Your task to perform on an android device: Clear the shopping cart on ebay. Search for "logitech g pro" on ebay, select the first entry, and add it to the cart. Image 0: 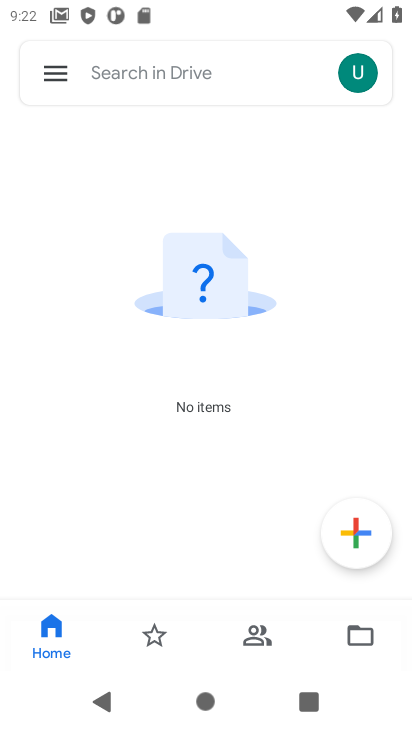
Step 0: press home button
Your task to perform on an android device: Clear the shopping cart on ebay. Search for "logitech g pro" on ebay, select the first entry, and add it to the cart. Image 1: 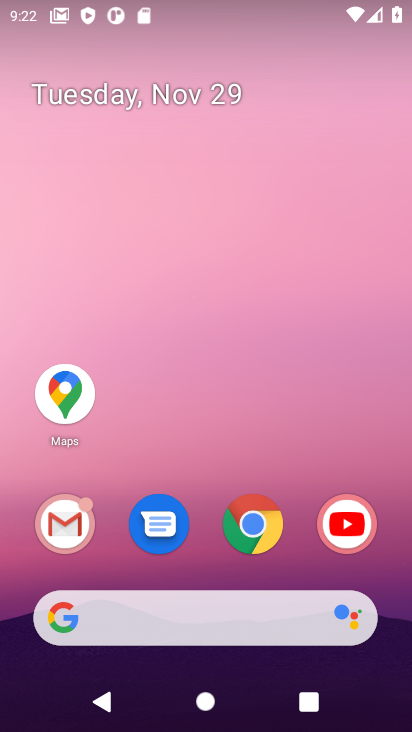
Step 1: click (256, 533)
Your task to perform on an android device: Clear the shopping cart on ebay. Search for "logitech g pro" on ebay, select the first entry, and add it to the cart. Image 2: 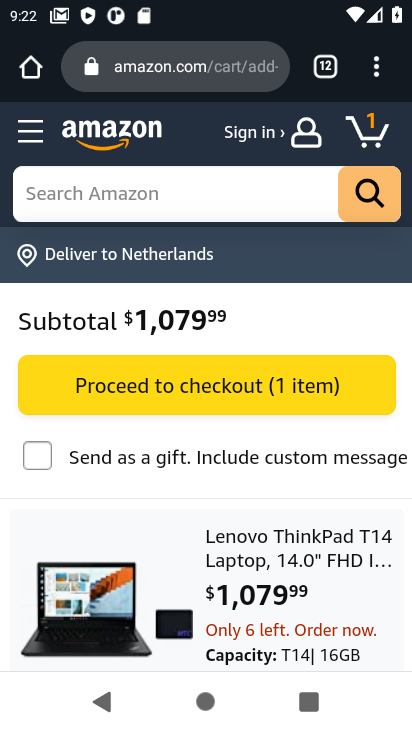
Step 2: click (159, 72)
Your task to perform on an android device: Clear the shopping cart on ebay. Search for "logitech g pro" on ebay, select the first entry, and add it to the cart. Image 3: 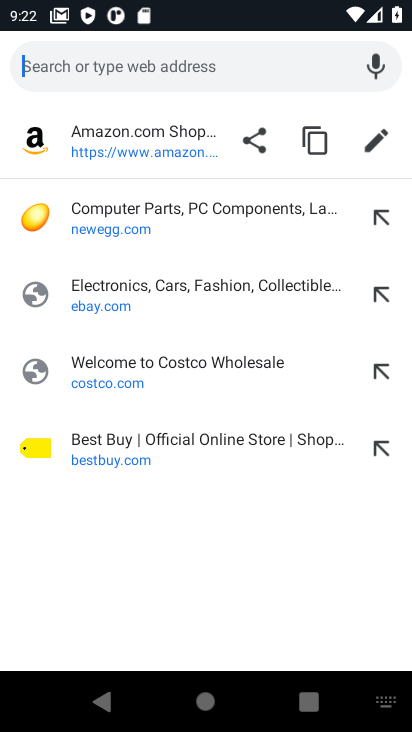
Step 3: click (80, 301)
Your task to perform on an android device: Clear the shopping cart on ebay. Search for "logitech g pro" on ebay, select the first entry, and add it to the cart. Image 4: 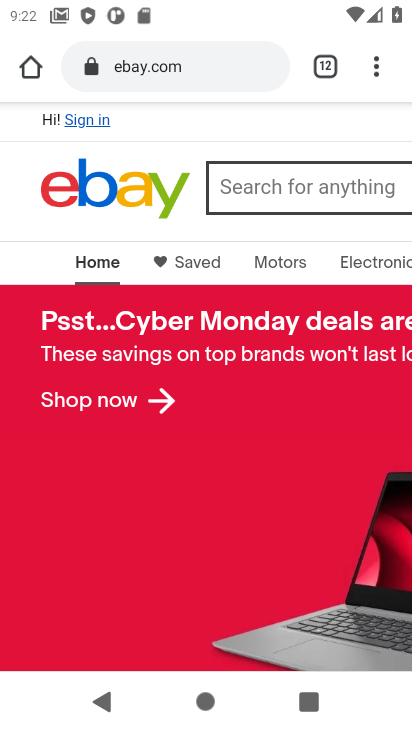
Step 4: drag from (297, 142) to (0, 122)
Your task to perform on an android device: Clear the shopping cart on ebay. Search for "logitech g pro" on ebay, select the first entry, and add it to the cart. Image 5: 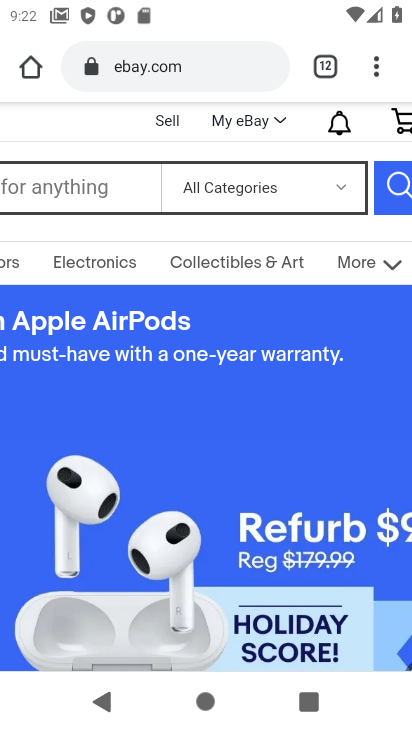
Step 5: click (404, 119)
Your task to perform on an android device: Clear the shopping cart on ebay. Search for "logitech g pro" on ebay, select the first entry, and add it to the cart. Image 6: 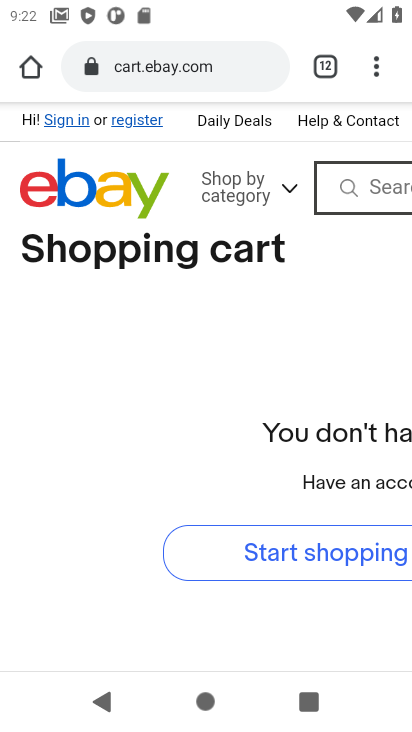
Step 6: click (315, 693)
Your task to perform on an android device: Clear the shopping cart on ebay. Search for "logitech g pro" on ebay, select the first entry, and add it to the cart. Image 7: 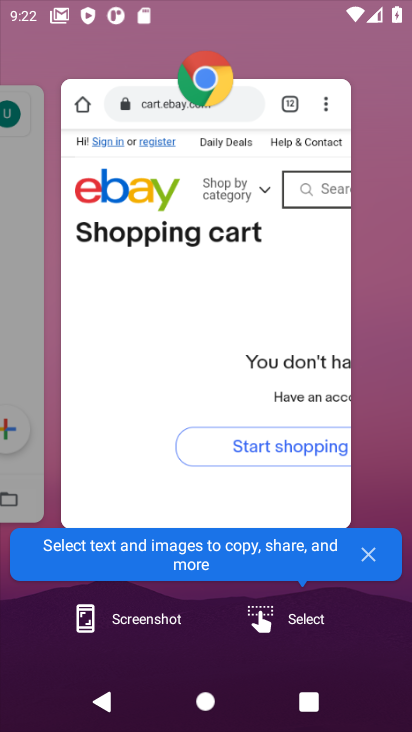
Step 7: click (369, 193)
Your task to perform on an android device: Clear the shopping cart on ebay. Search for "logitech g pro" on ebay, select the first entry, and add it to the cart. Image 8: 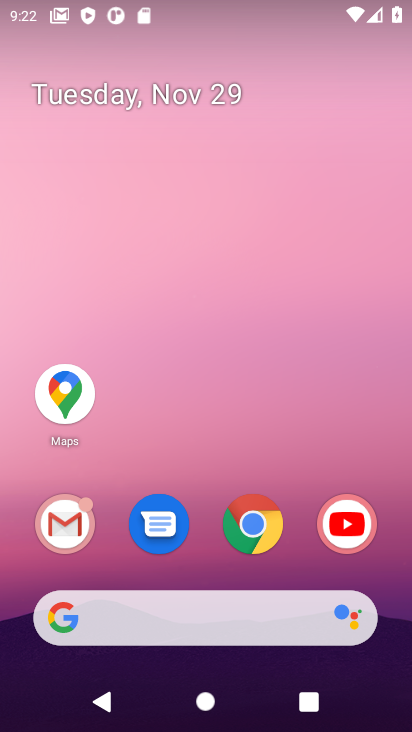
Step 8: click (328, 193)
Your task to perform on an android device: Clear the shopping cart on ebay. Search for "logitech g pro" on ebay, select the first entry, and add it to the cart. Image 9: 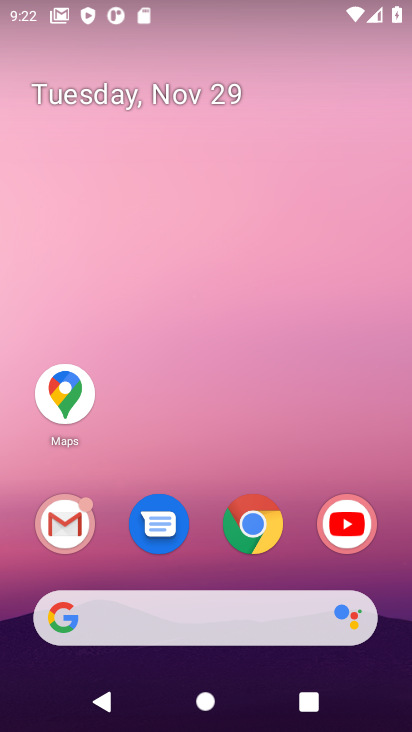
Step 9: click (240, 508)
Your task to perform on an android device: Clear the shopping cart on ebay. Search for "logitech g pro" on ebay, select the first entry, and add it to the cart. Image 10: 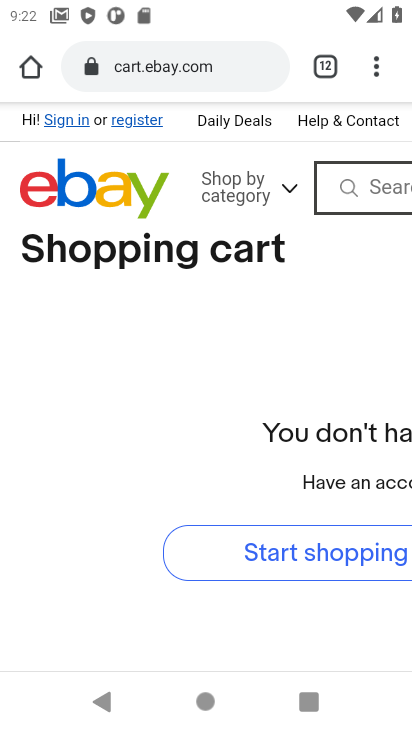
Step 10: drag from (336, 243) to (45, 221)
Your task to perform on an android device: Clear the shopping cart on ebay. Search for "logitech g pro" on ebay, select the first entry, and add it to the cart. Image 11: 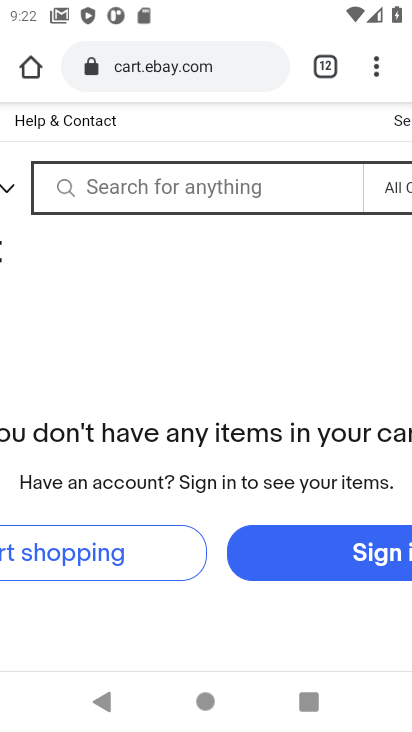
Step 11: drag from (372, 144) to (127, 140)
Your task to perform on an android device: Clear the shopping cart on ebay. Search for "logitech g pro" on ebay, select the first entry, and add it to the cart. Image 12: 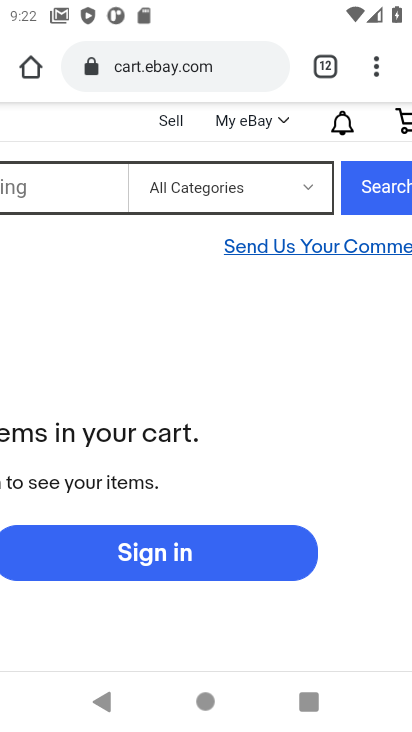
Step 12: click (403, 116)
Your task to perform on an android device: Clear the shopping cart on ebay. Search for "logitech g pro" on ebay, select the first entry, and add it to the cart. Image 13: 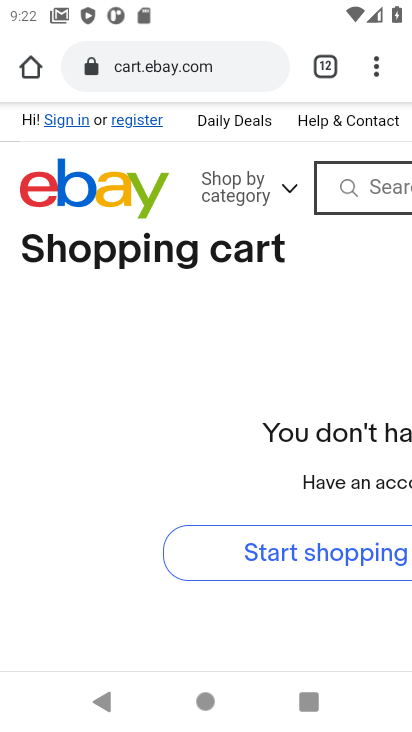
Step 13: click (370, 193)
Your task to perform on an android device: Clear the shopping cart on ebay. Search for "logitech g pro" on ebay, select the first entry, and add it to the cart. Image 14: 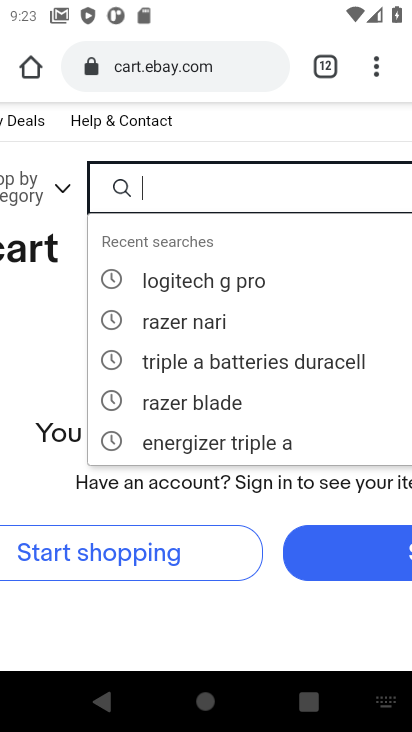
Step 14: type "logitech g pro"
Your task to perform on an android device: Clear the shopping cart on ebay. Search for "logitech g pro" on ebay, select the first entry, and add it to the cart. Image 15: 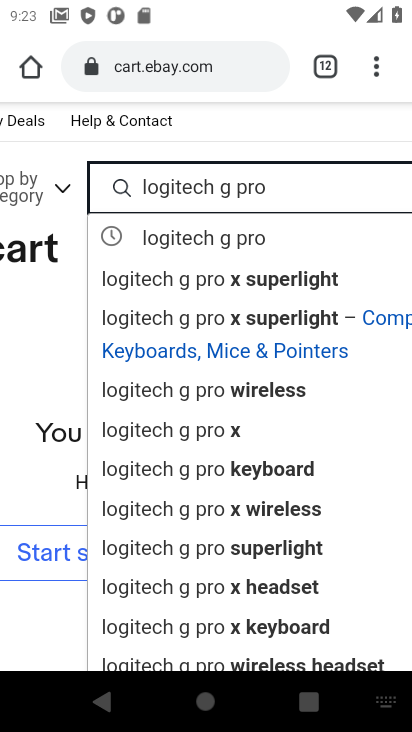
Step 15: click (210, 238)
Your task to perform on an android device: Clear the shopping cart on ebay. Search for "logitech g pro" on ebay, select the first entry, and add it to the cart. Image 16: 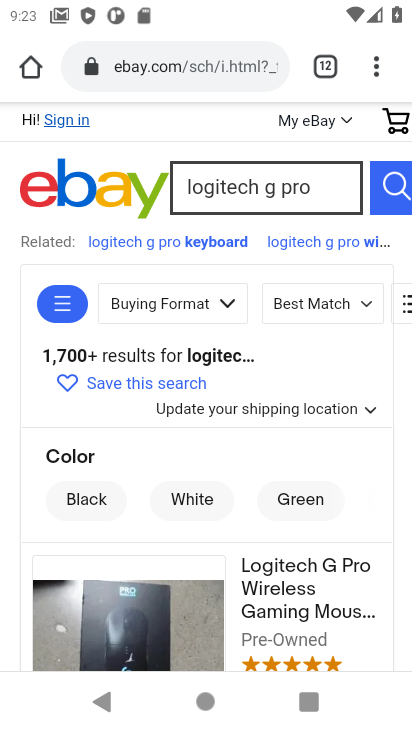
Step 16: drag from (221, 497) to (226, 177)
Your task to perform on an android device: Clear the shopping cart on ebay. Search for "logitech g pro" on ebay, select the first entry, and add it to the cart. Image 17: 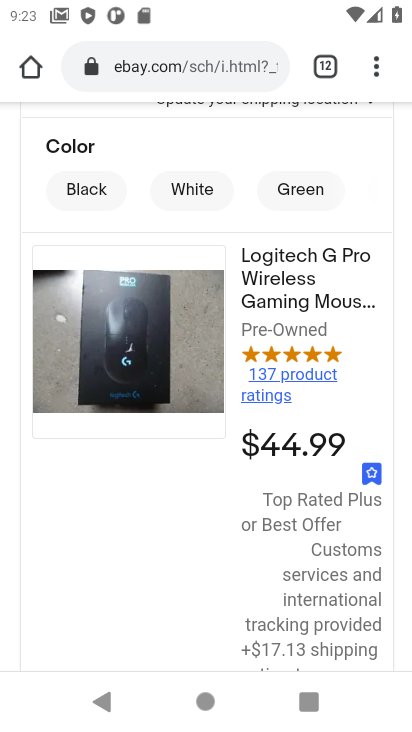
Step 17: click (172, 382)
Your task to perform on an android device: Clear the shopping cart on ebay. Search for "logitech g pro" on ebay, select the first entry, and add it to the cart. Image 18: 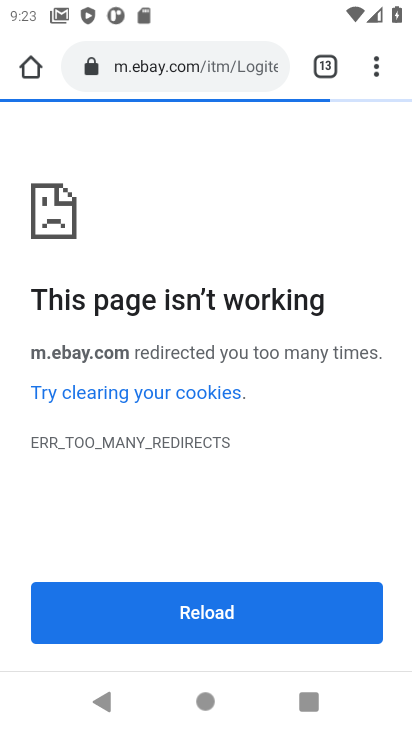
Step 18: task complete